Your task to perform on an android device: Open the phone app and click the voicemail tab. Image 0: 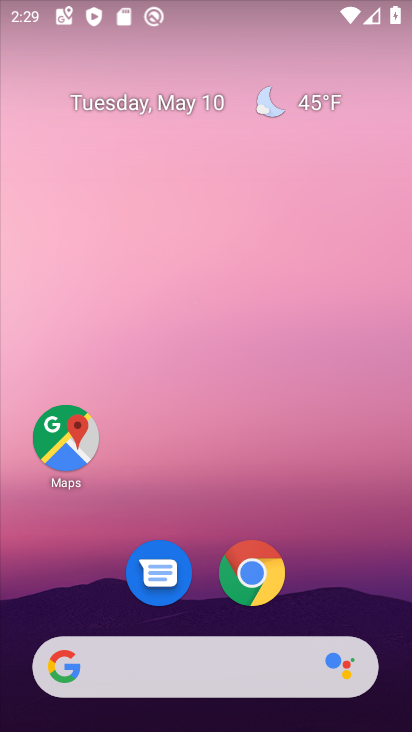
Step 0: drag from (209, 617) to (222, 142)
Your task to perform on an android device: Open the phone app and click the voicemail tab. Image 1: 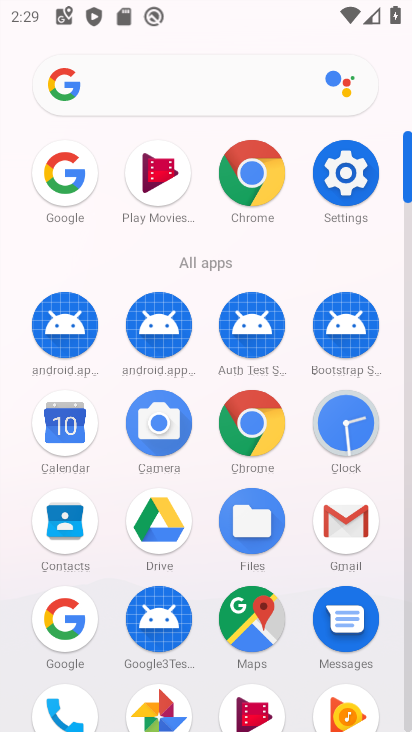
Step 1: click (76, 698)
Your task to perform on an android device: Open the phone app and click the voicemail tab. Image 2: 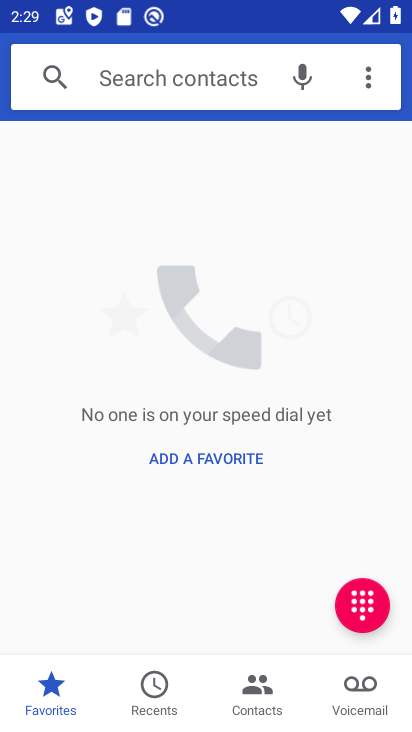
Step 2: click (373, 675)
Your task to perform on an android device: Open the phone app and click the voicemail tab. Image 3: 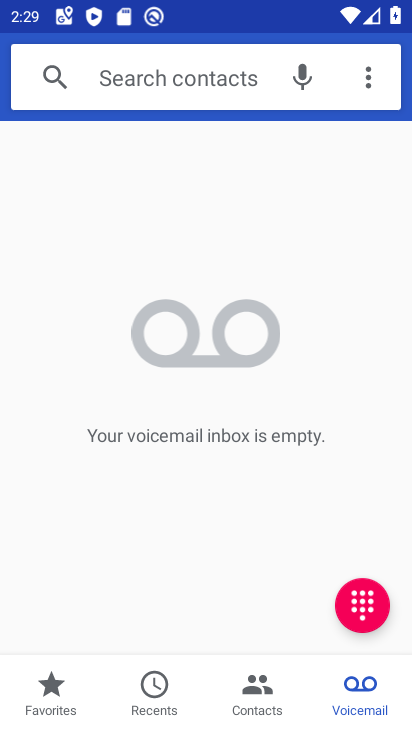
Step 3: task complete